Your task to perform on an android device: toggle pop-ups in chrome Image 0: 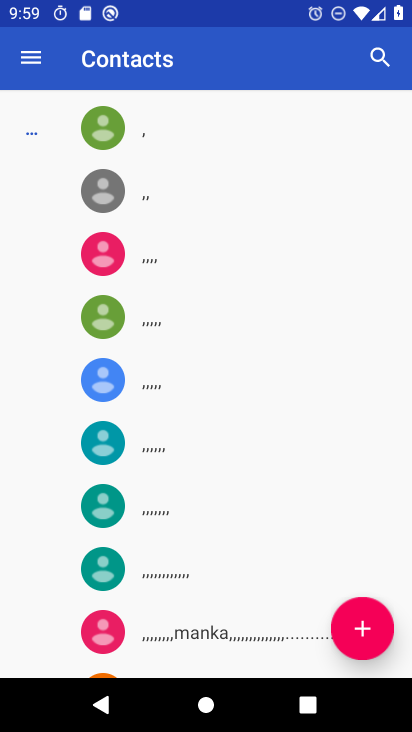
Step 0: press home button
Your task to perform on an android device: toggle pop-ups in chrome Image 1: 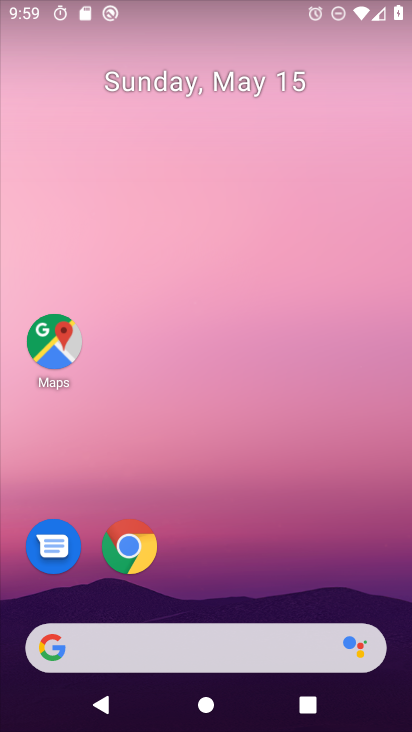
Step 1: click (142, 538)
Your task to perform on an android device: toggle pop-ups in chrome Image 2: 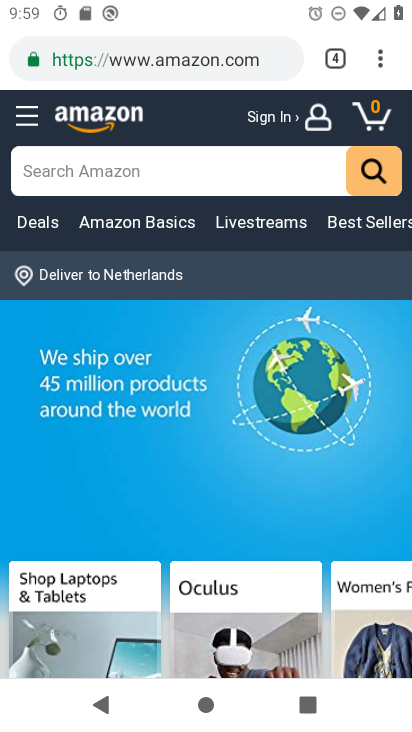
Step 2: click (378, 57)
Your task to perform on an android device: toggle pop-ups in chrome Image 3: 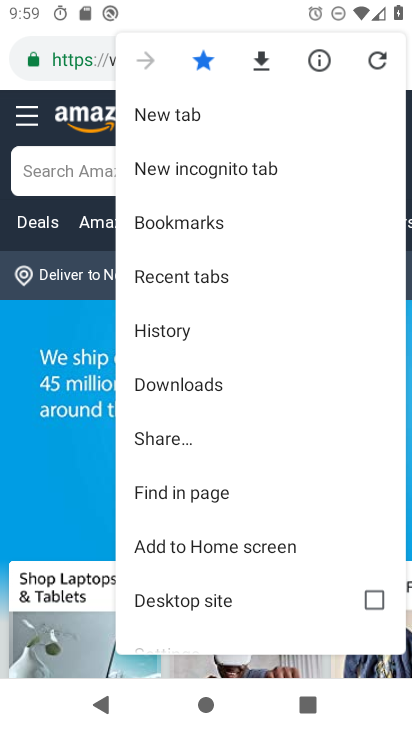
Step 3: drag from (267, 530) to (256, 299)
Your task to perform on an android device: toggle pop-ups in chrome Image 4: 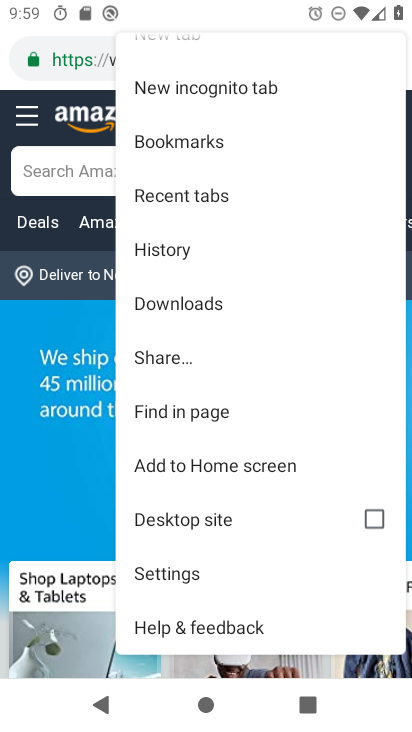
Step 4: click (219, 575)
Your task to perform on an android device: toggle pop-ups in chrome Image 5: 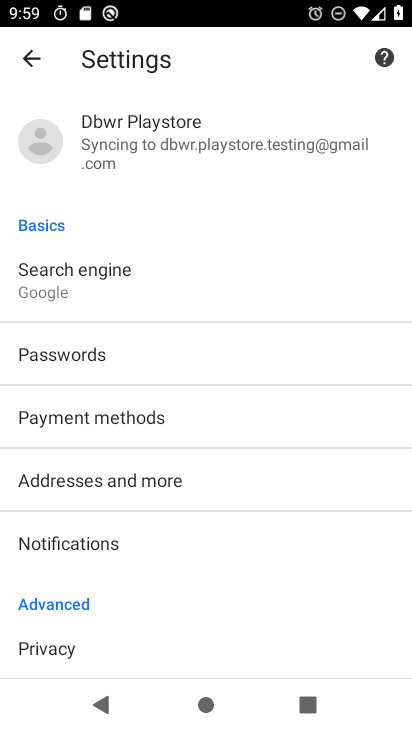
Step 5: drag from (288, 526) to (283, 314)
Your task to perform on an android device: toggle pop-ups in chrome Image 6: 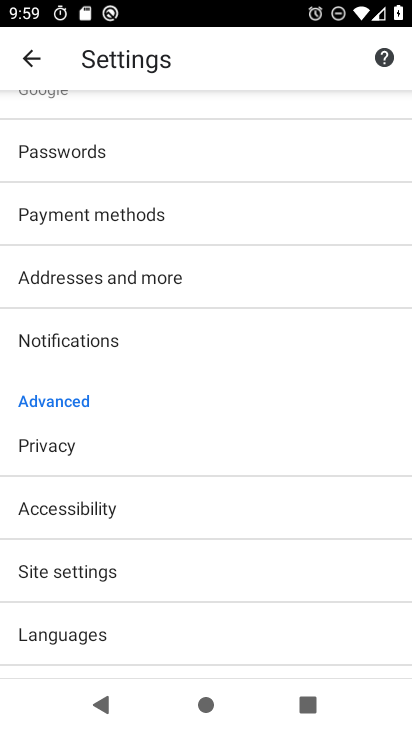
Step 6: click (250, 572)
Your task to perform on an android device: toggle pop-ups in chrome Image 7: 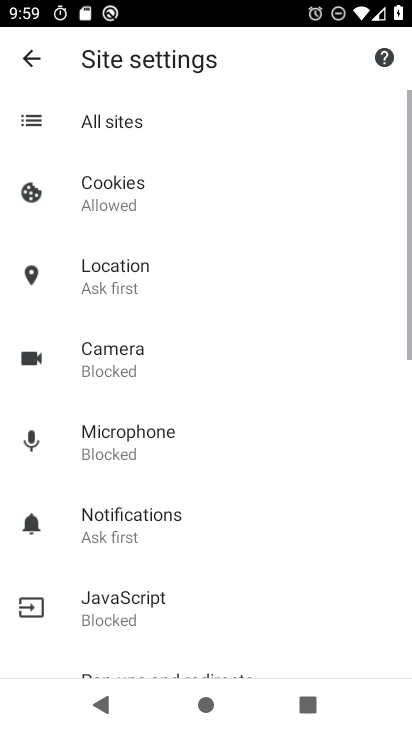
Step 7: drag from (259, 550) to (259, 431)
Your task to perform on an android device: toggle pop-ups in chrome Image 8: 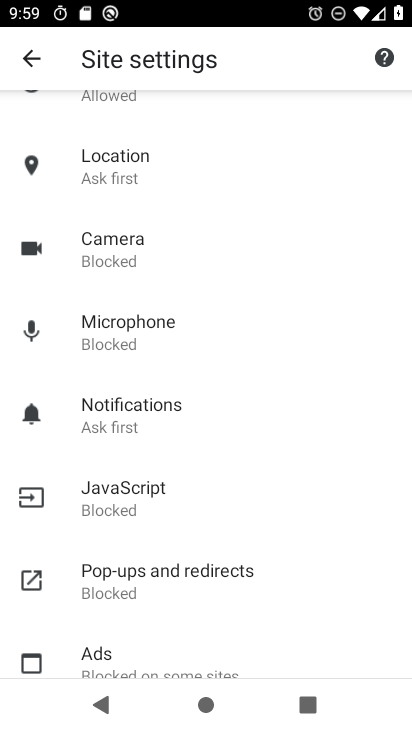
Step 8: click (269, 577)
Your task to perform on an android device: toggle pop-ups in chrome Image 9: 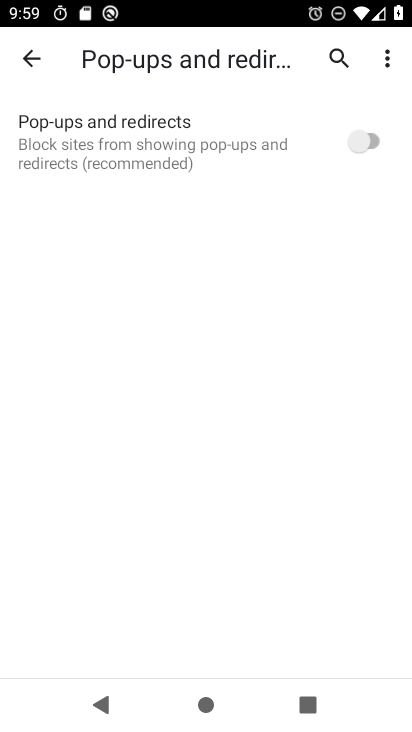
Step 9: click (352, 132)
Your task to perform on an android device: toggle pop-ups in chrome Image 10: 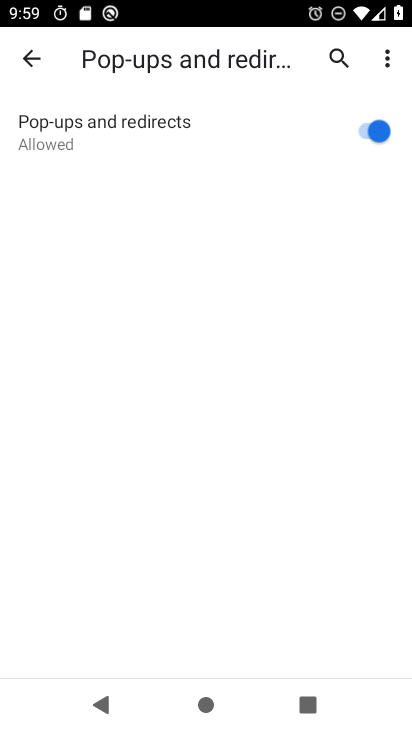
Step 10: task complete